Your task to perform on an android device: turn on translation in the chrome app Image 0: 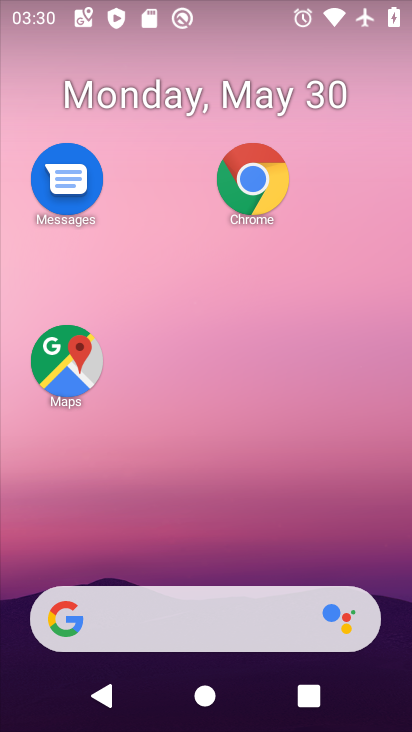
Step 0: drag from (212, 555) to (238, 3)
Your task to perform on an android device: turn on translation in the chrome app Image 1: 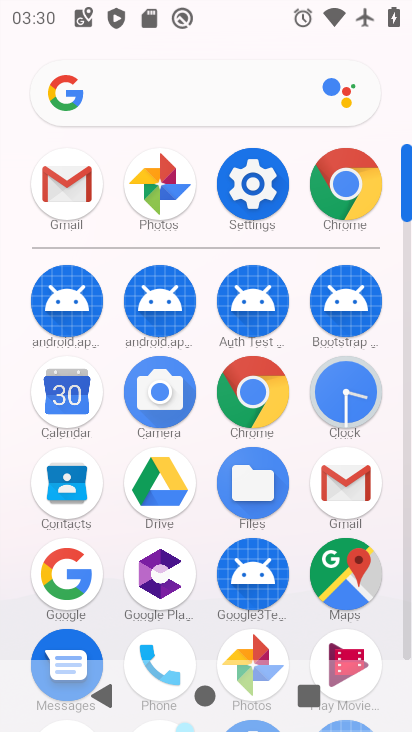
Step 1: click (350, 187)
Your task to perform on an android device: turn on translation in the chrome app Image 2: 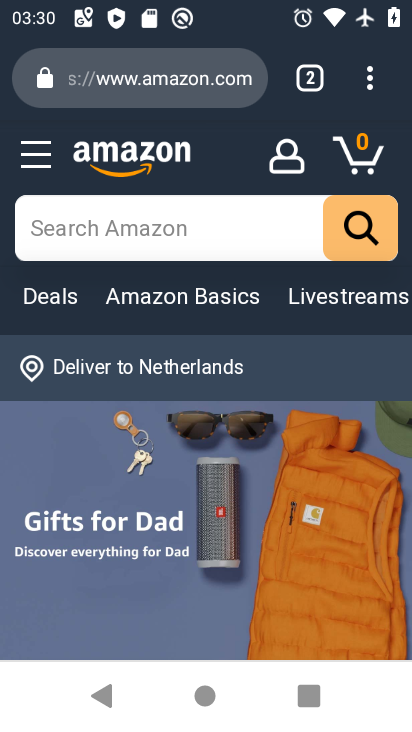
Step 2: click (375, 87)
Your task to perform on an android device: turn on translation in the chrome app Image 3: 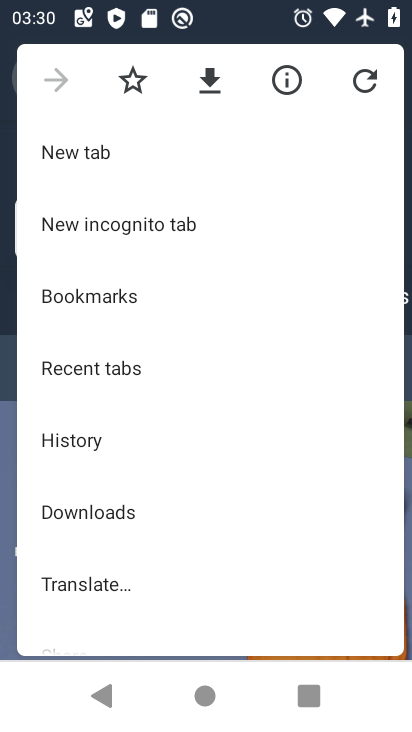
Step 3: drag from (178, 570) to (187, 74)
Your task to perform on an android device: turn on translation in the chrome app Image 4: 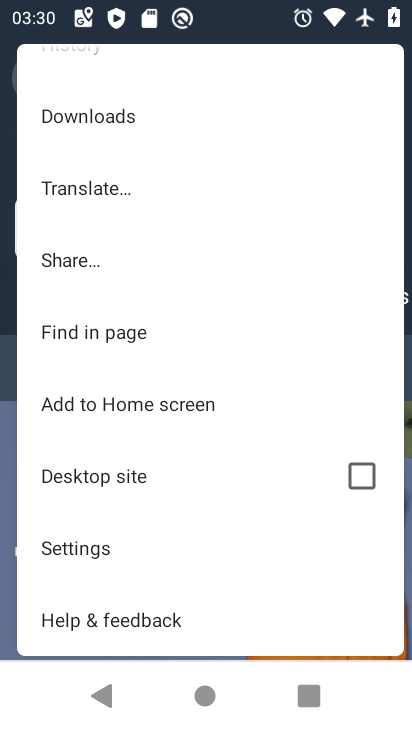
Step 4: click (113, 560)
Your task to perform on an android device: turn on translation in the chrome app Image 5: 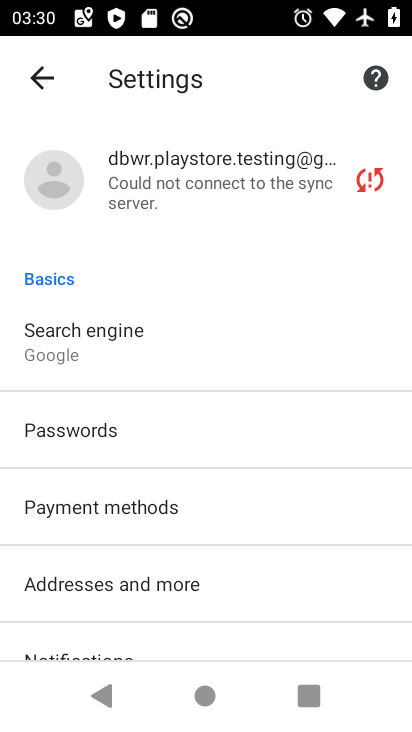
Step 5: drag from (130, 600) to (219, 94)
Your task to perform on an android device: turn on translation in the chrome app Image 6: 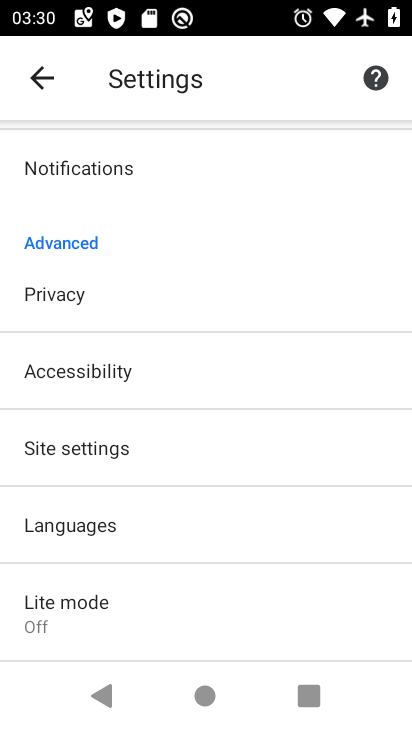
Step 6: click (156, 534)
Your task to perform on an android device: turn on translation in the chrome app Image 7: 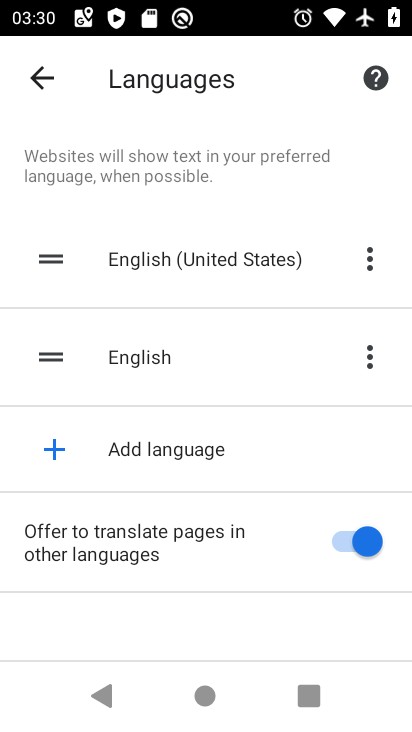
Step 7: task complete